Your task to perform on an android device: toggle airplane mode Image 0: 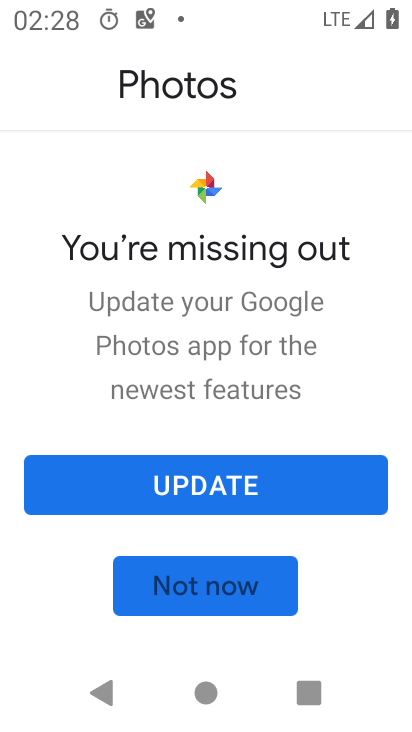
Step 0: press home button
Your task to perform on an android device: toggle airplane mode Image 1: 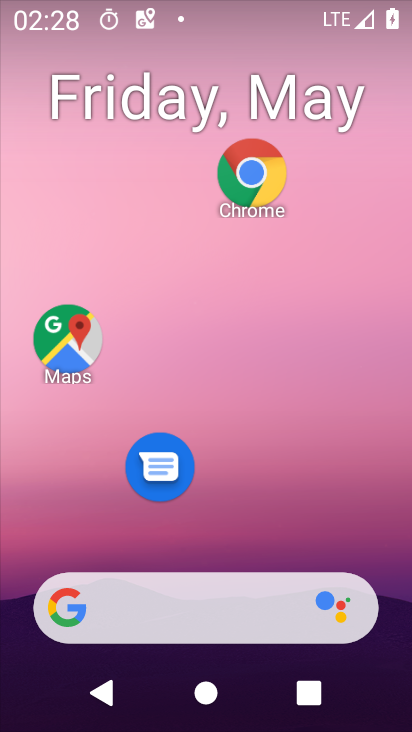
Step 1: drag from (262, 228) to (234, 157)
Your task to perform on an android device: toggle airplane mode Image 2: 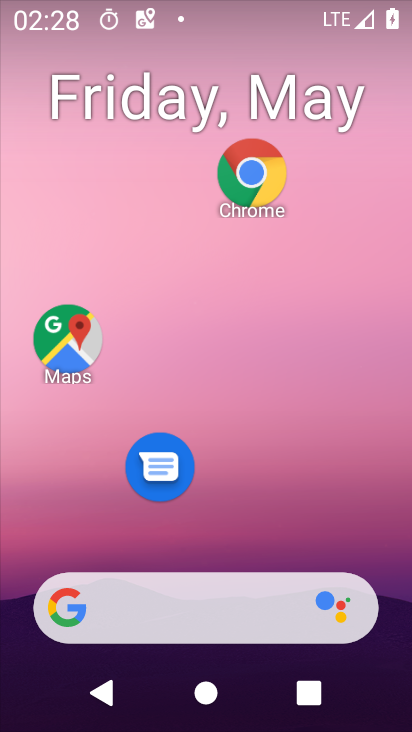
Step 2: drag from (247, 601) to (167, 130)
Your task to perform on an android device: toggle airplane mode Image 3: 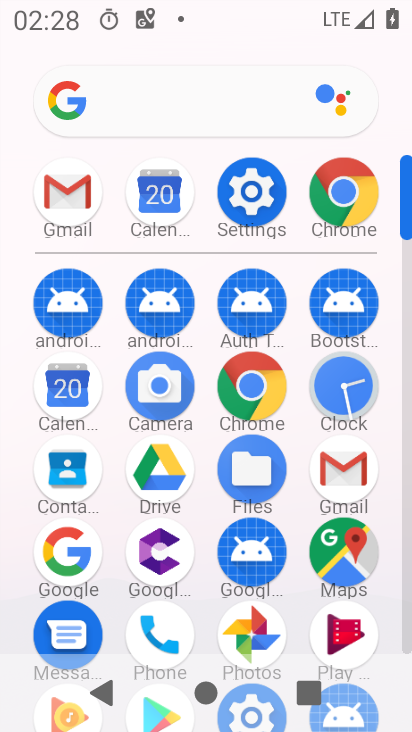
Step 3: click (279, 196)
Your task to perform on an android device: toggle airplane mode Image 4: 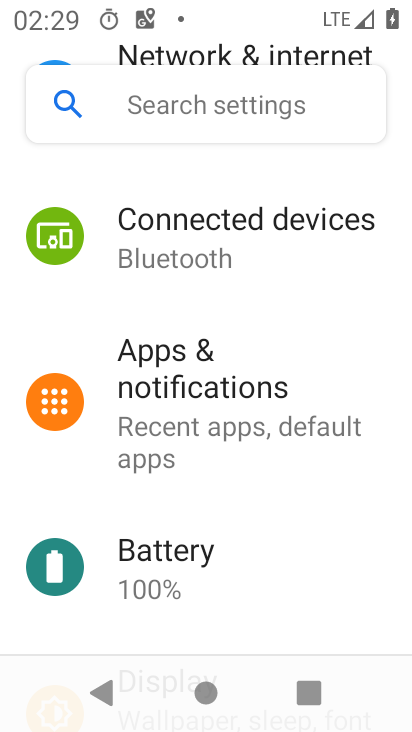
Step 4: drag from (227, 243) to (246, 472)
Your task to perform on an android device: toggle airplane mode Image 5: 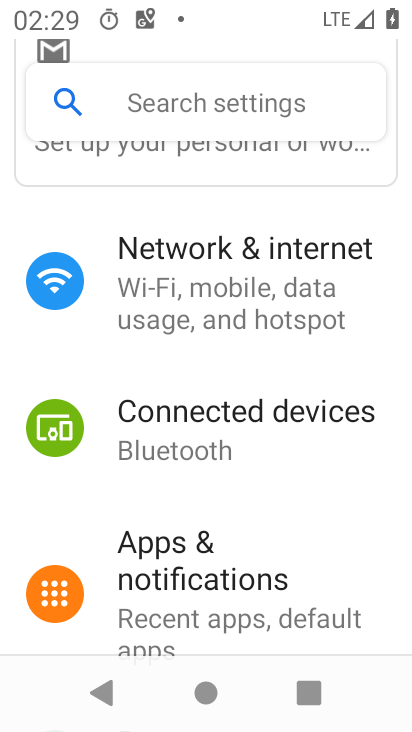
Step 5: click (246, 309)
Your task to perform on an android device: toggle airplane mode Image 6: 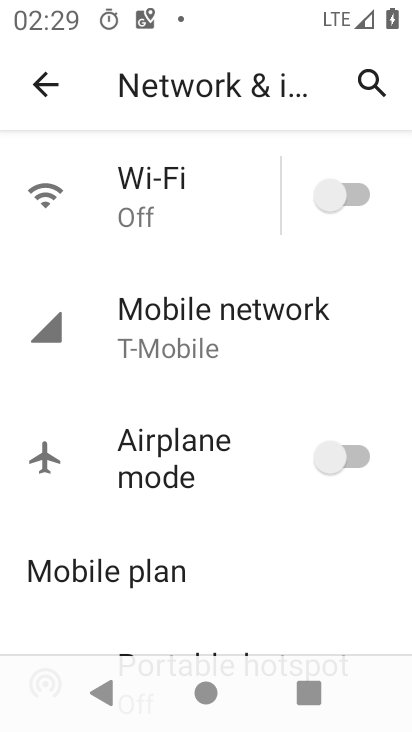
Step 6: click (191, 458)
Your task to perform on an android device: toggle airplane mode Image 7: 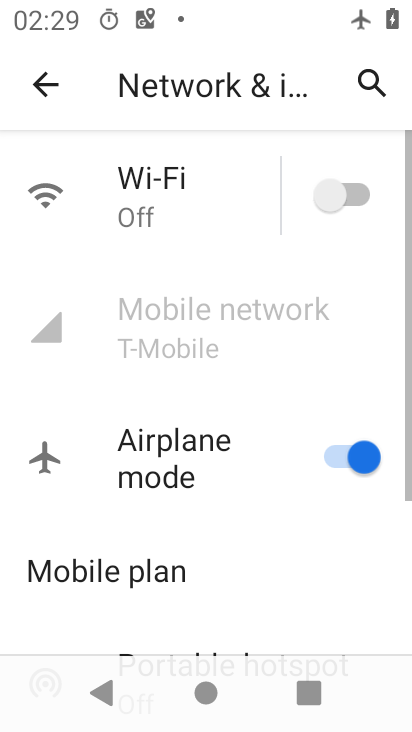
Step 7: click (200, 457)
Your task to perform on an android device: toggle airplane mode Image 8: 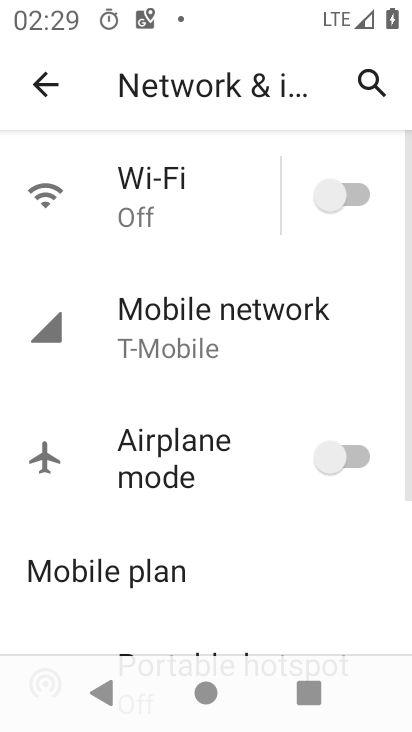
Step 8: task complete